Your task to perform on an android device: Show me the alarms in the clock app Image 0: 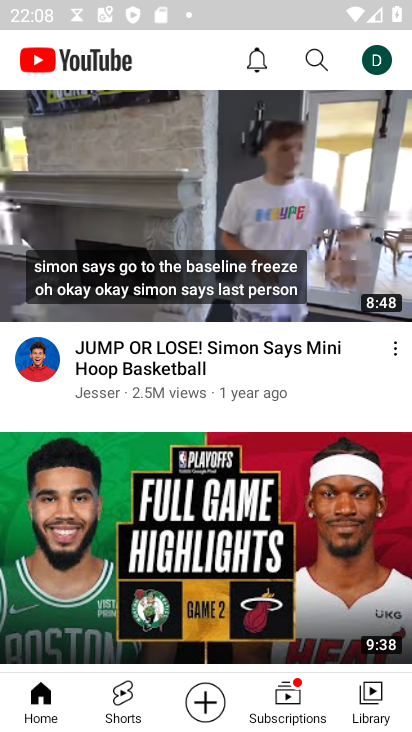
Step 0: press home button
Your task to perform on an android device: Show me the alarms in the clock app Image 1: 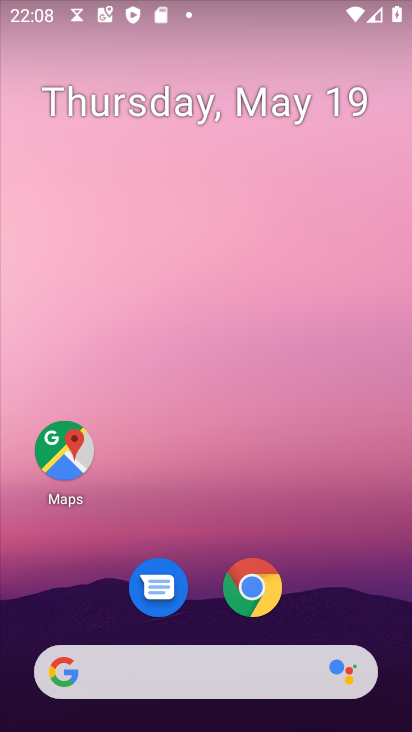
Step 1: drag from (152, 669) to (156, 134)
Your task to perform on an android device: Show me the alarms in the clock app Image 2: 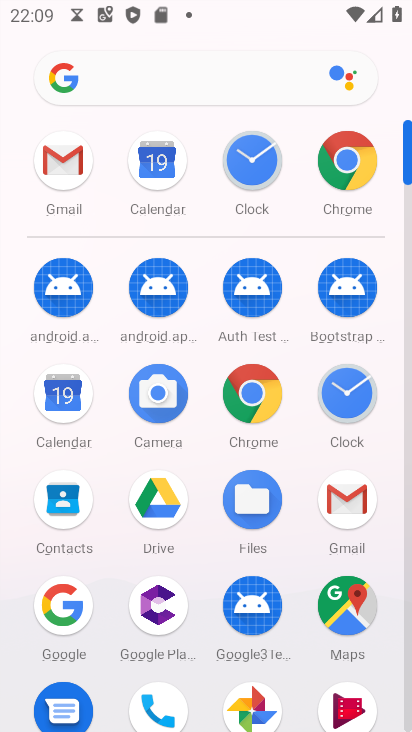
Step 2: click (353, 415)
Your task to perform on an android device: Show me the alarms in the clock app Image 3: 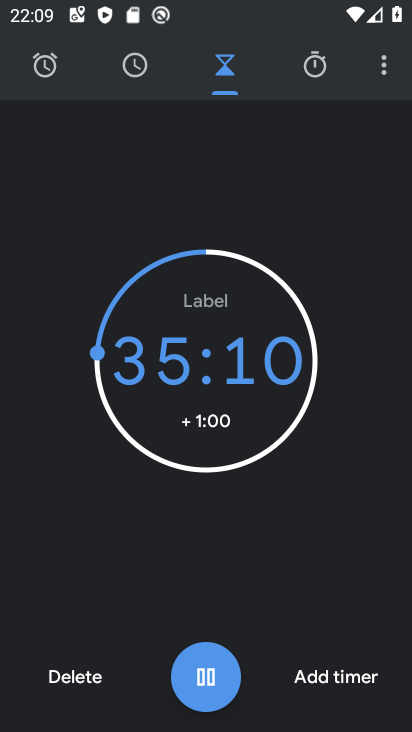
Step 3: click (48, 91)
Your task to perform on an android device: Show me the alarms in the clock app Image 4: 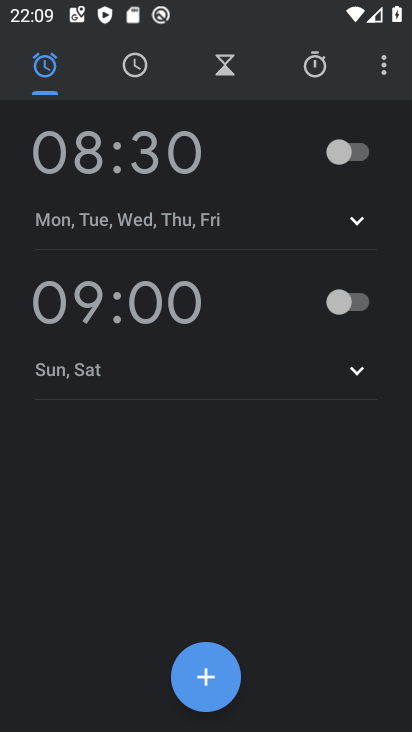
Step 4: task complete